Your task to perform on an android device: refresh tabs in the chrome app Image 0: 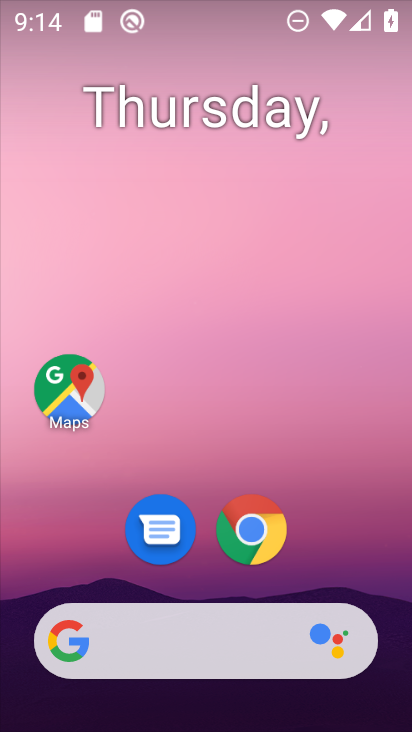
Step 0: click (260, 525)
Your task to perform on an android device: refresh tabs in the chrome app Image 1: 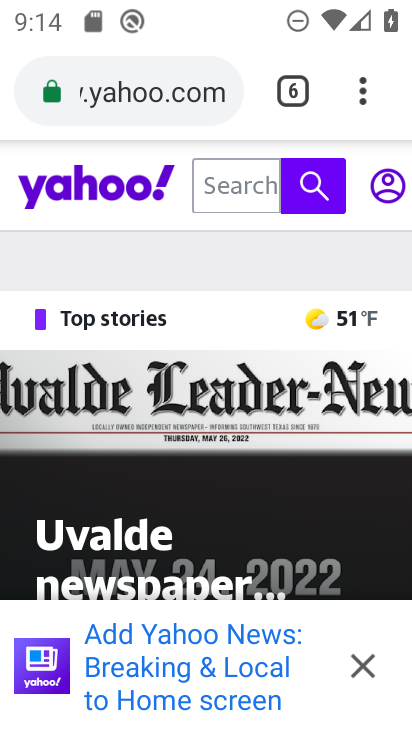
Step 1: click (364, 102)
Your task to perform on an android device: refresh tabs in the chrome app Image 2: 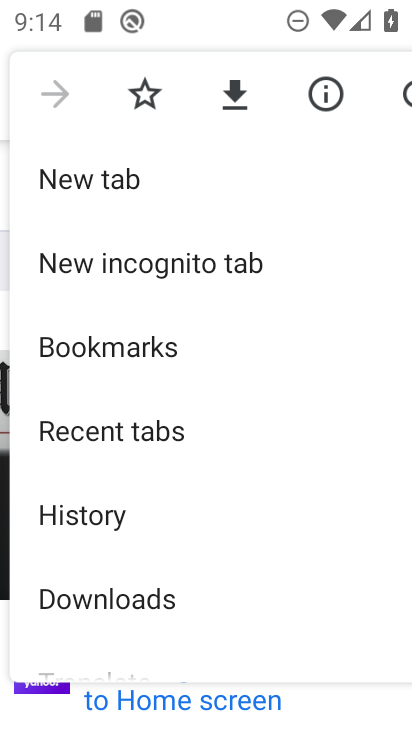
Step 2: click (406, 87)
Your task to perform on an android device: refresh tabs in the chrome app Image 3: 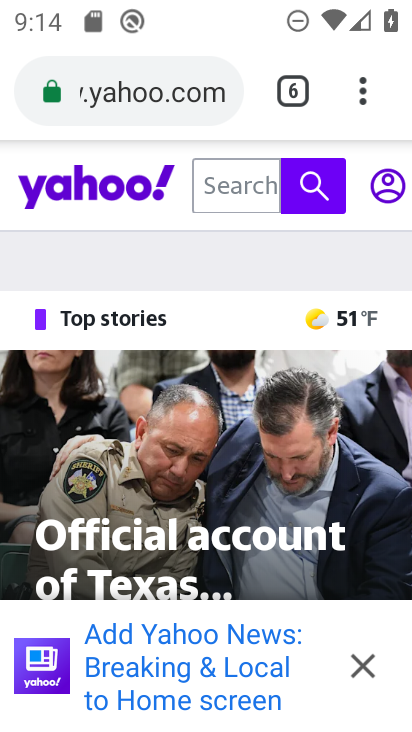
Step 3: task complete